Your task to perform on an android device: change your default location settings in chrome Image 0: 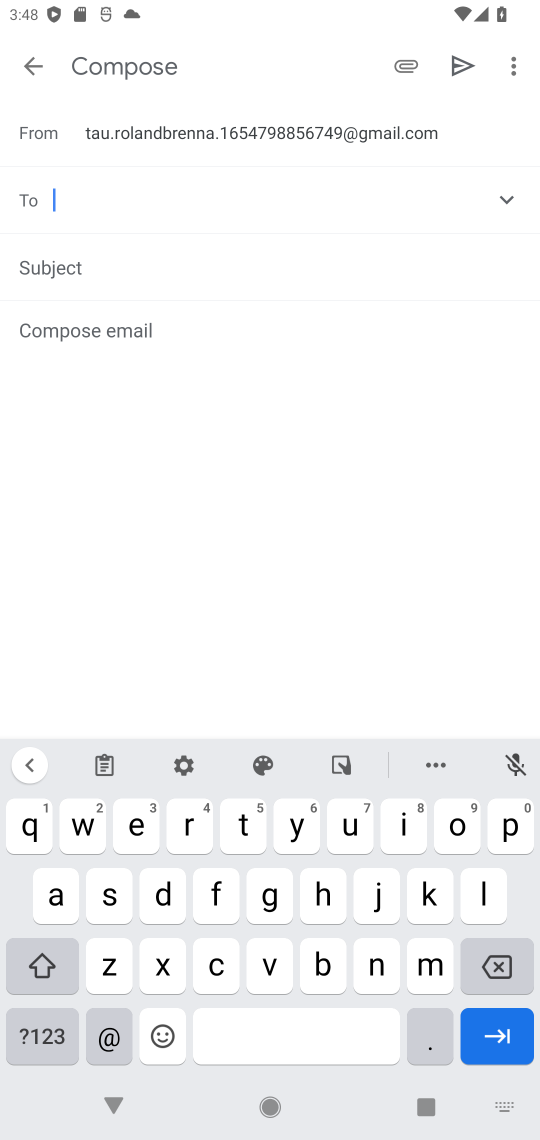
Step 0: press home button
Your task to perform on an android device: change your default location settings in chrome Image 1: 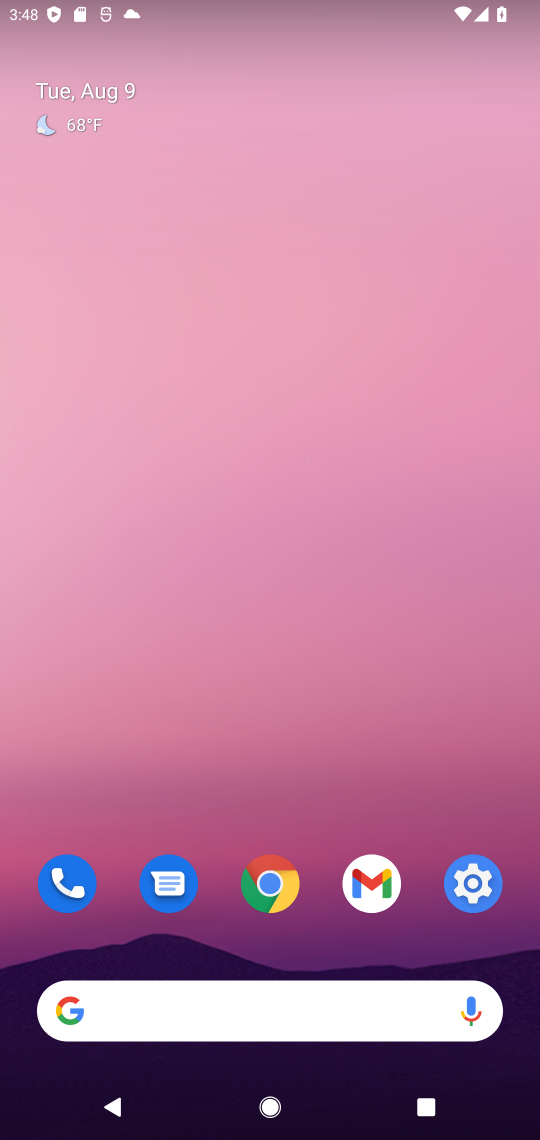
Step 1: drag from (288, 1080) to (313, 378)
Your task to perform on an android device: change your default location settings in chrome Image 2: 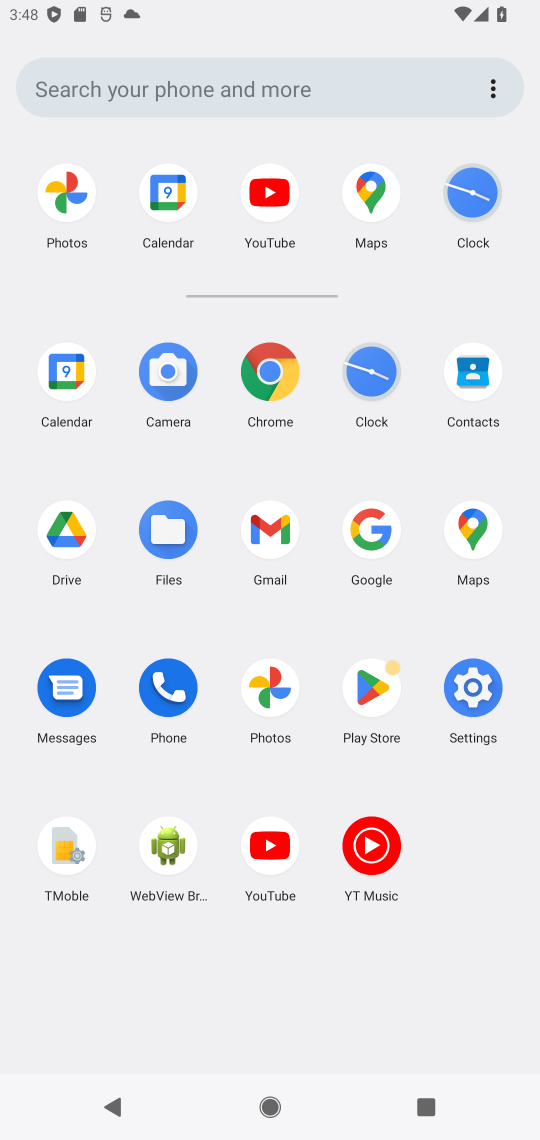
Step 2: click (266, 375)
Your task to perform on an android device: change your default location settings in chrome Image 3: 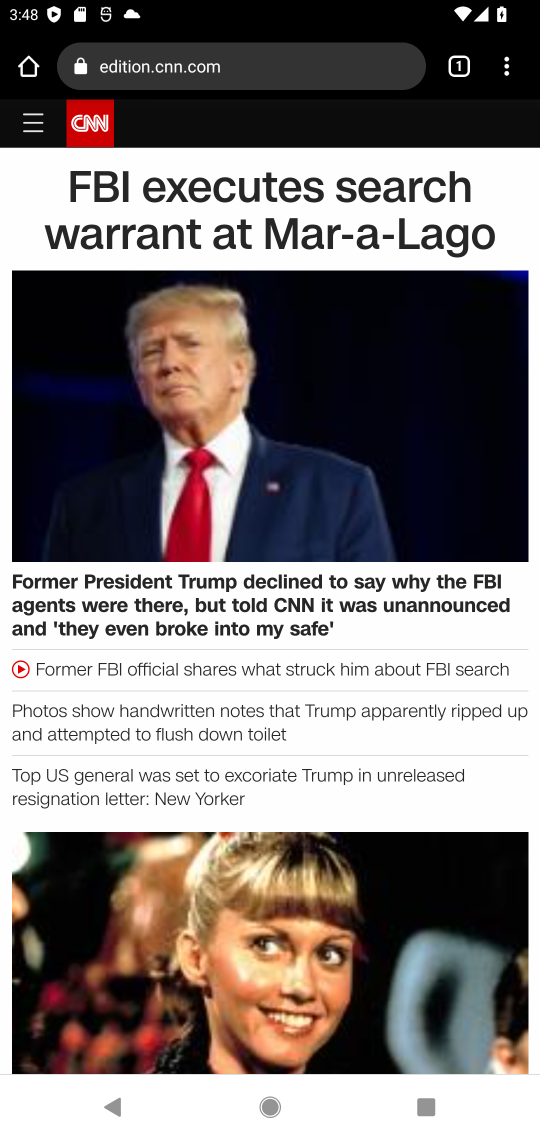
Step 3: click (511, 67)
Your task to perform on an android device: change your default location settings in chrome Image 4: 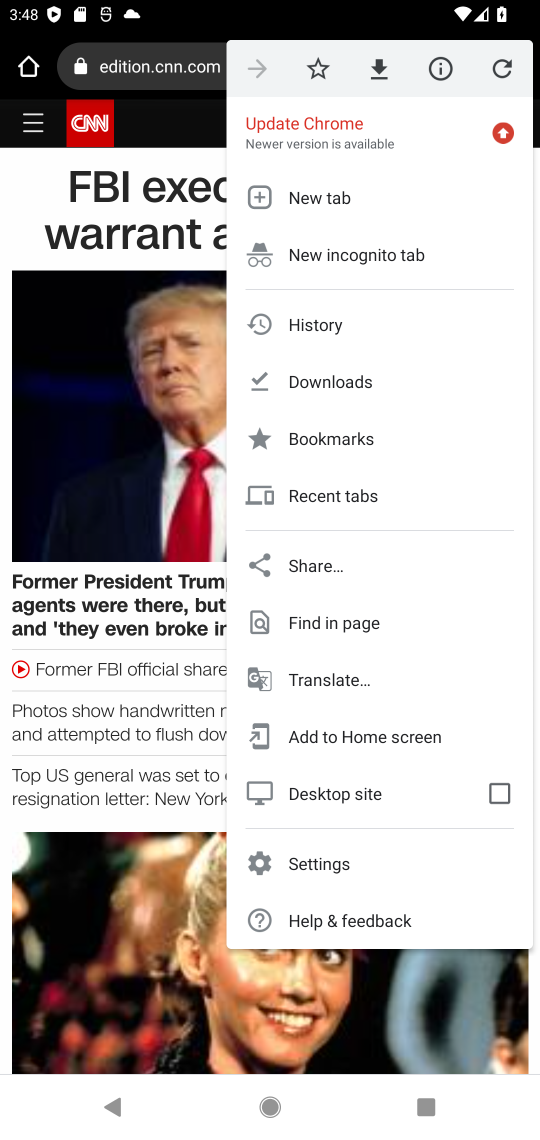
Step 4: click (323, 867)
Your task to perform on an android device: change your default location settings in chrome Image 5: 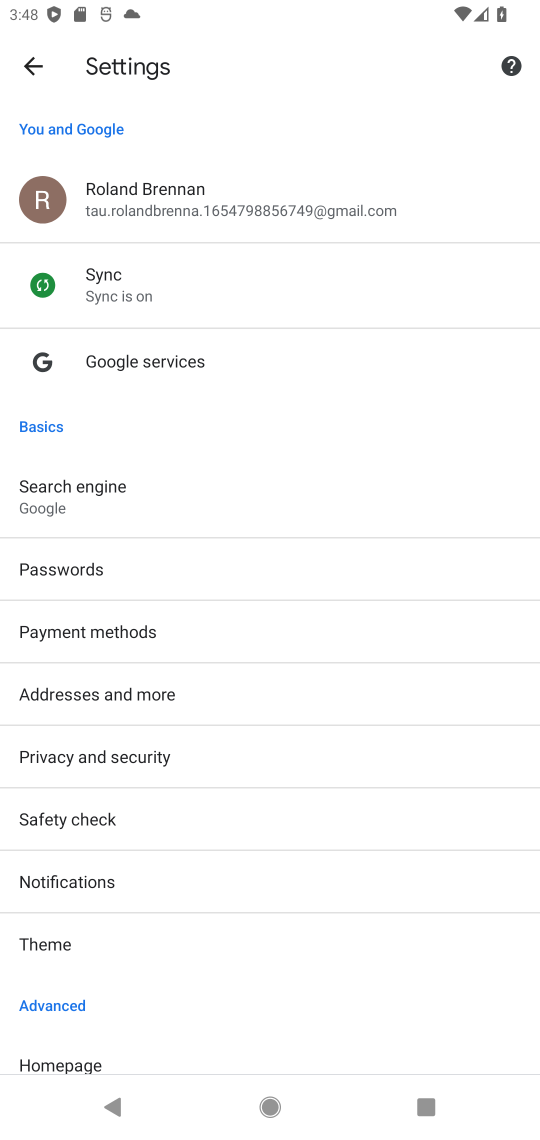
Step 5: task complete